Your task to perform on an android device: Go to battery settings Image 0: 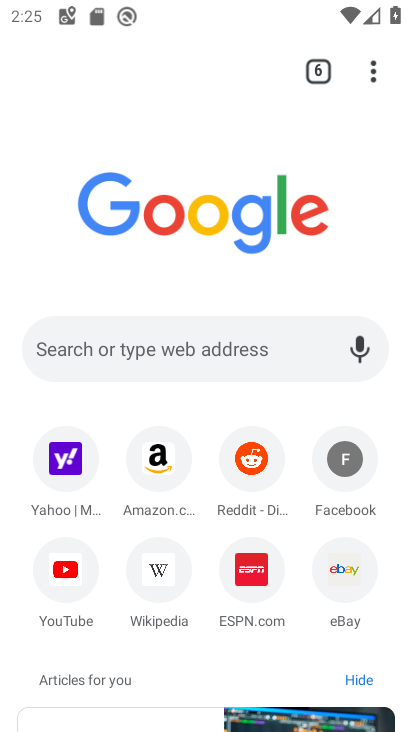
Step 0: press home button
Your task to perform on an android device: Go to battery settings Image 1: 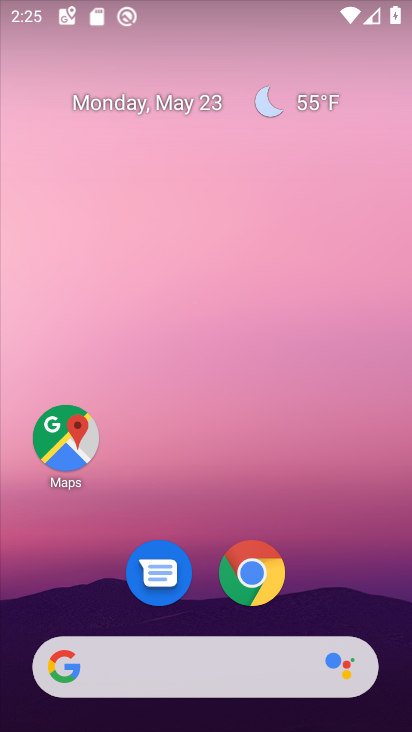
Step 1: drag from (326, 594) to (346, 17)
Your task to perform on an android device: Go to battery settings Image 2: 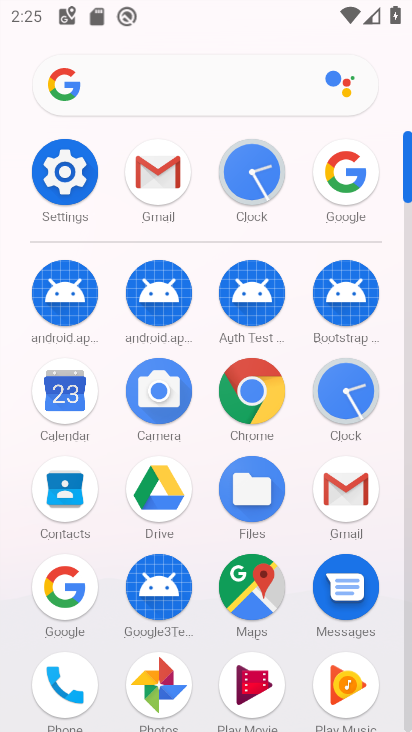
Step 2: click (72, 177)
Your task to perform on an android device: Go to battery settings Image 3: 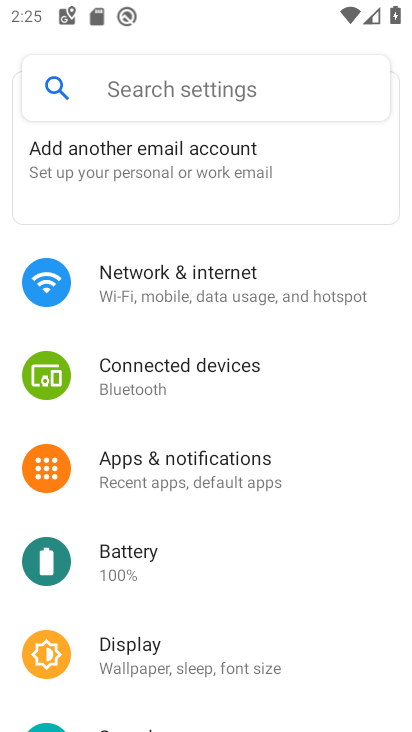
Step 3: click (113, 566)
Your task to perform on an android device: Go to battery settings Image 4: 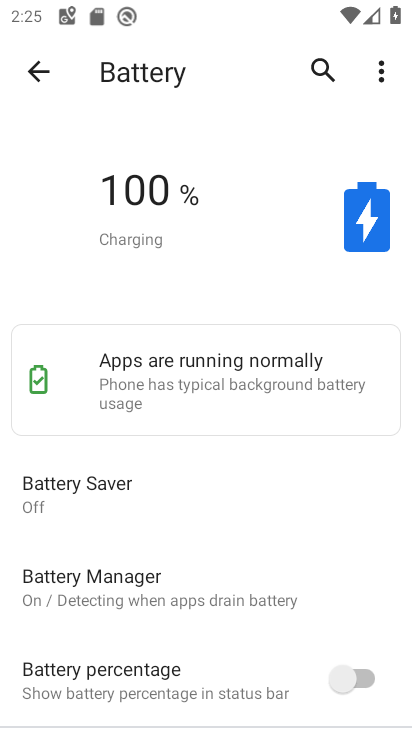
Step 4: task complete